Your task to perform on an android device: Go to location settings Image 0: 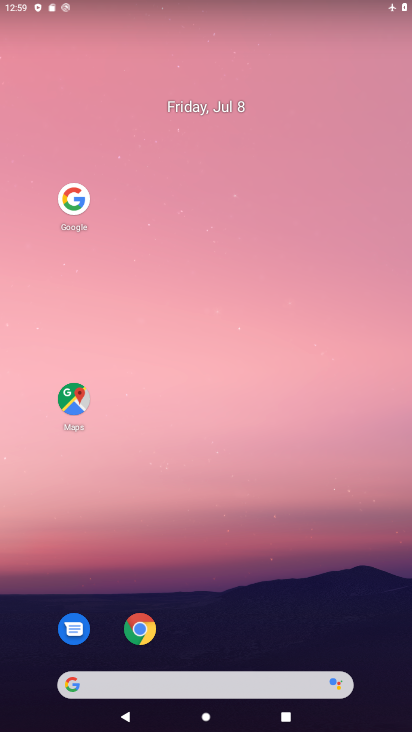
Step 0: drag from (185, 186) to (189, 10)
Your task to perform on an android device: Go to location settings Image 1: 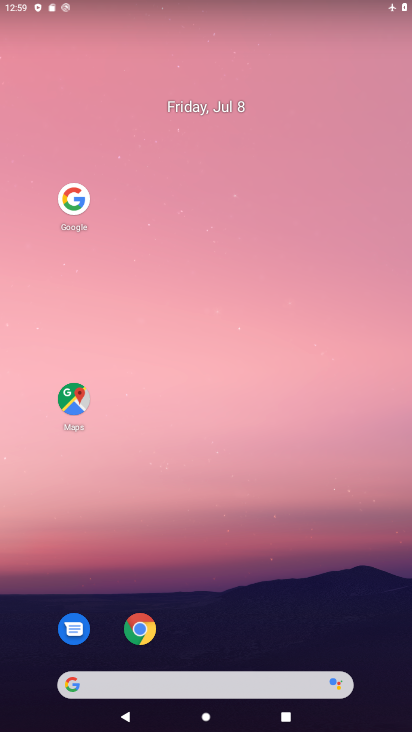
Step 1: drag from (178, 303) to (165, 34)
Your task to perform on an android device: Go to location settings Image 2: 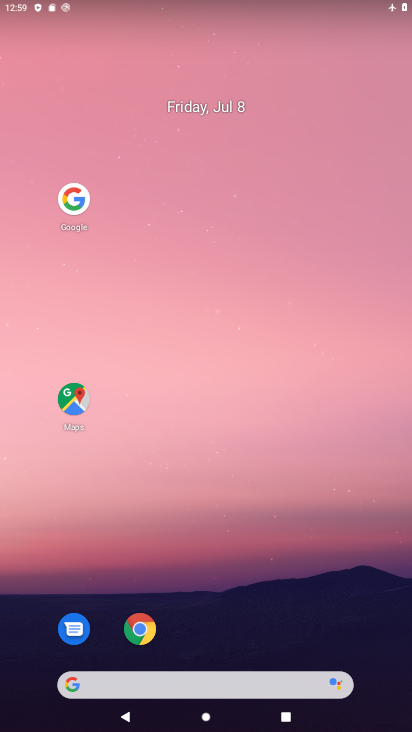
Step 2: drag from (259, 555) to (67, 56)
Your task to perform on an android device: Go to location settings Image 3: 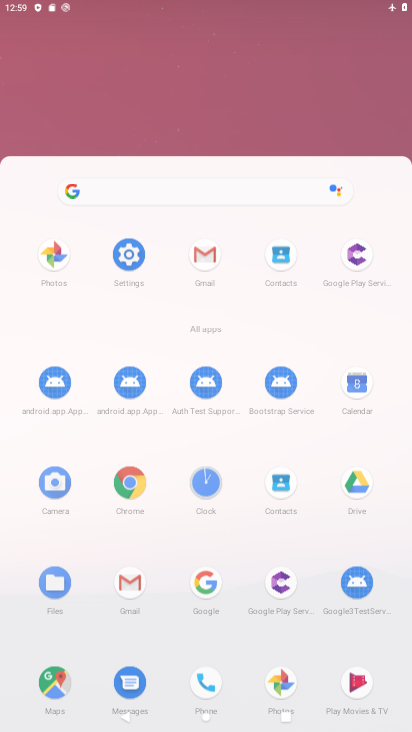
Step 3: click (142, 11)
Your task to perform on an android device: Go to location settings Image 4: 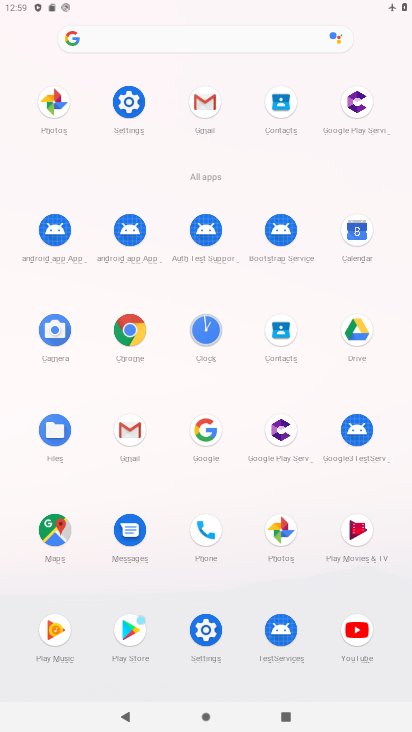
Step 4: drag from (134, 102) to (106, 71)
Your task to perform on an android device: Go to location settings Image 5: 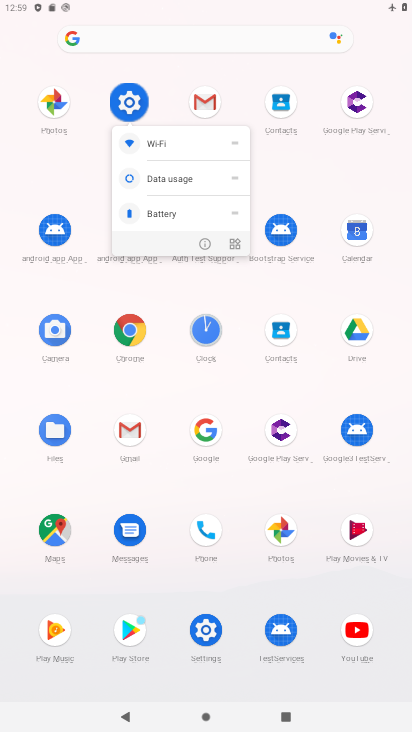
Step 5: click (112, 68)
Your task to perform on an android device: Go to location settings Image 6: 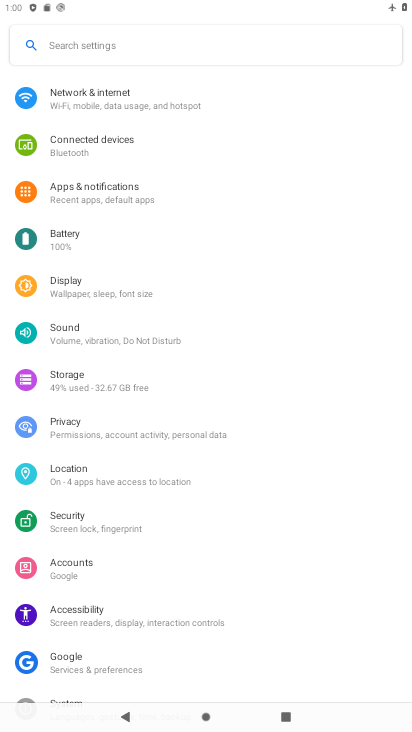
Step 6: click (80, 479)
Your task to perform on an android device: Go to location settings Image 7: 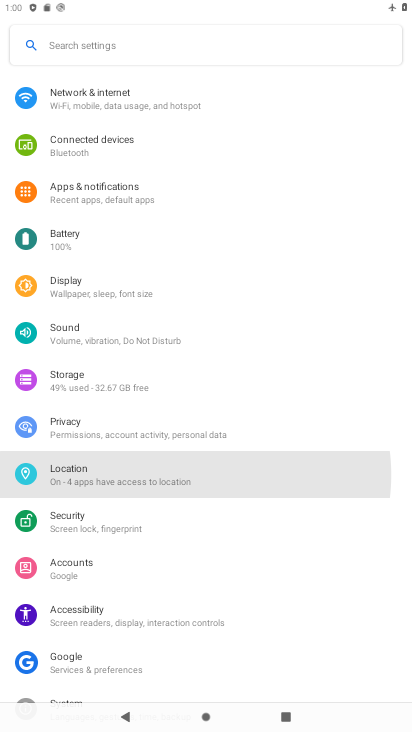
Step 7: click (79, 479)
Your task to perform on an android device: Go to location settings Image 8: 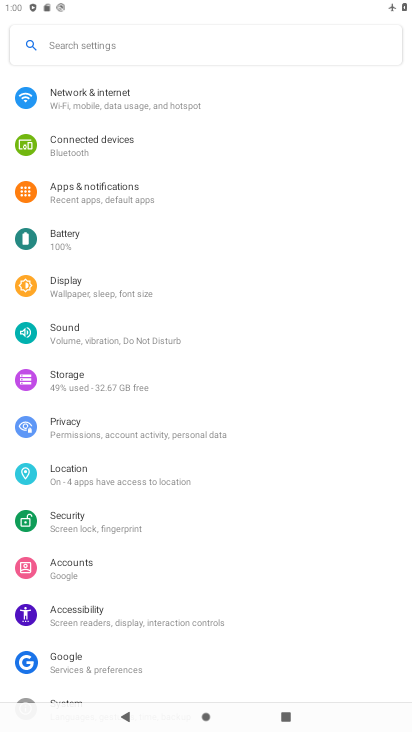
Step 8: click (78, 479)
Your task to perform on an android device: Go to location settings Image 9: 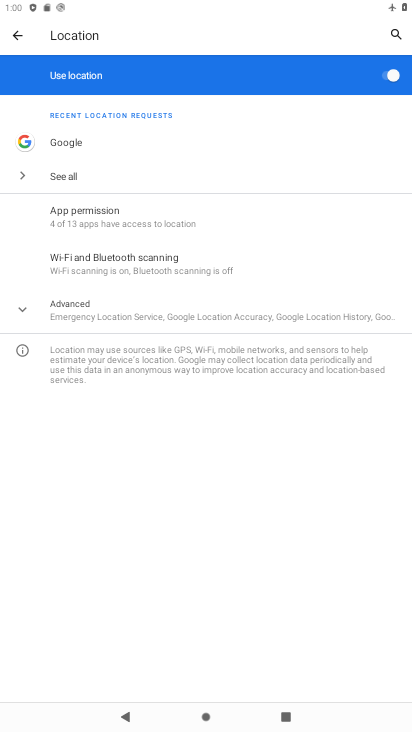
Step 9: task complete